Your task to perform on an android device: Open Chrome and go to the settings page Image 0: 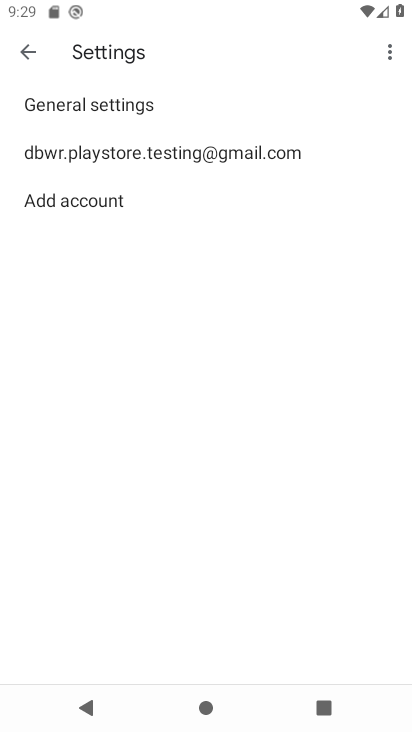
Step 0: press home button
Your task to perform on an android device: Open Chrome and go to the settings page Image 1: 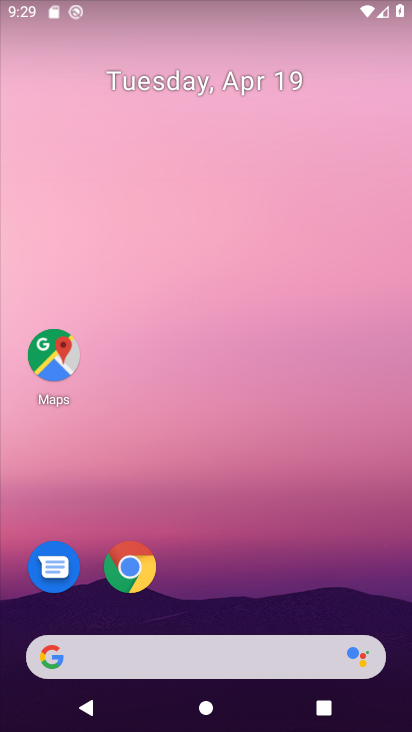
Step 1: click (129, 573)
Your task to perform on an android device: Open Chrome and go to the settings page Image 2: 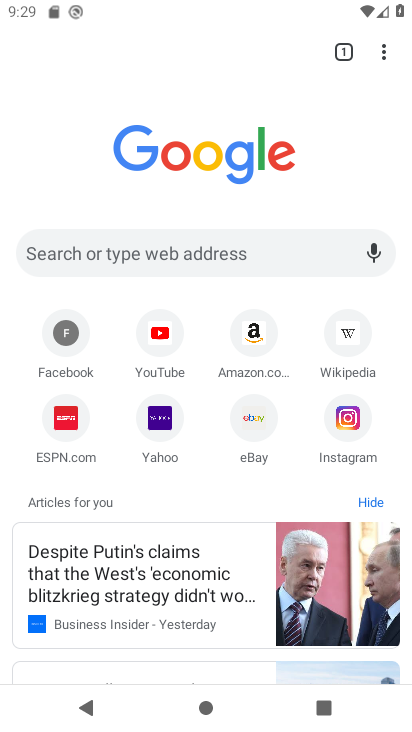
Step 2: click (383, 52)
Your task to perform on an android device: Open Chrome and go to the settings page Image 3: 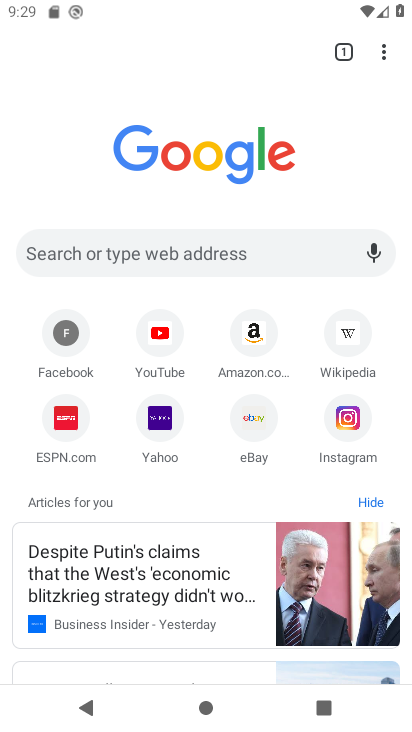
Step 3: click (383, 52)
Your task to perform on an android device: Open Chrome and go to the settings page Image 4: 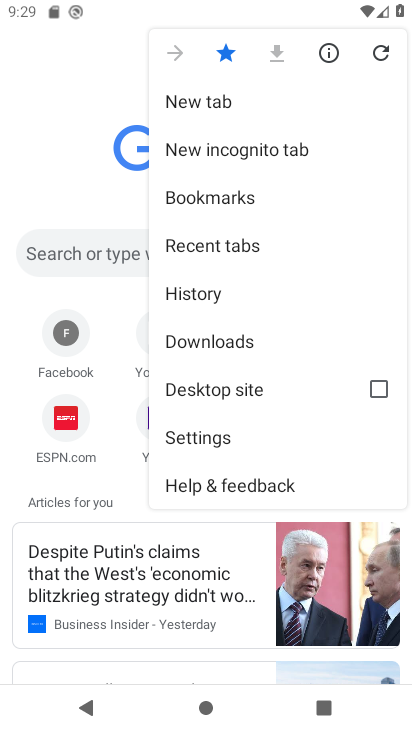
Step 4: click (226, 431)
Your task to perform on an android device: Open Chrome and go to the settings page Image 5: 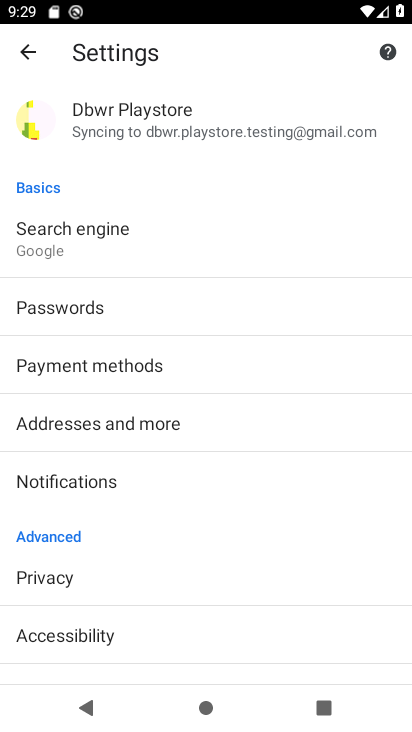
Step 5: task complete